Your task to perform on an android device: change the clock display to show seconds Image 0: 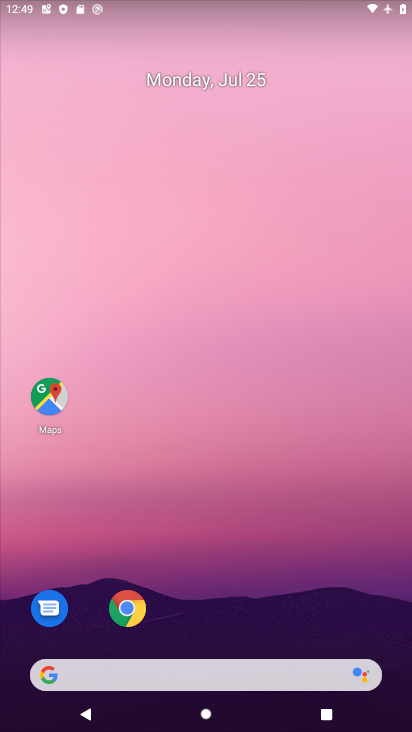
Step 0: drag from (254, 607) to (236, 179)
Your task to perform on an android device: change the clock display to show seconds Image 1: 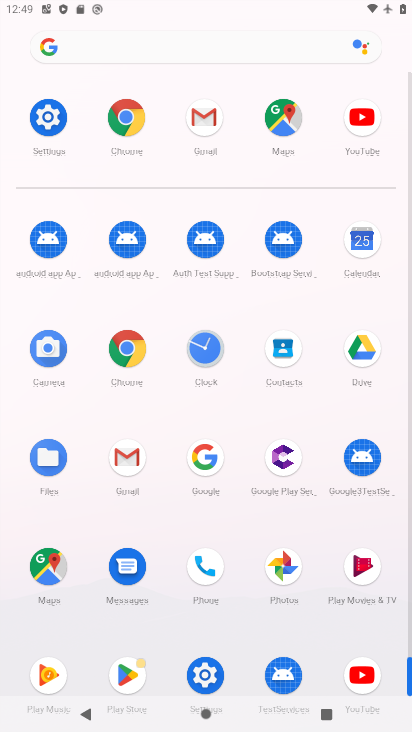
Step 1: drag from (212, 529) to (209, 277)
Your task to perform on an android device: change the clock display to show seconds Image 2: 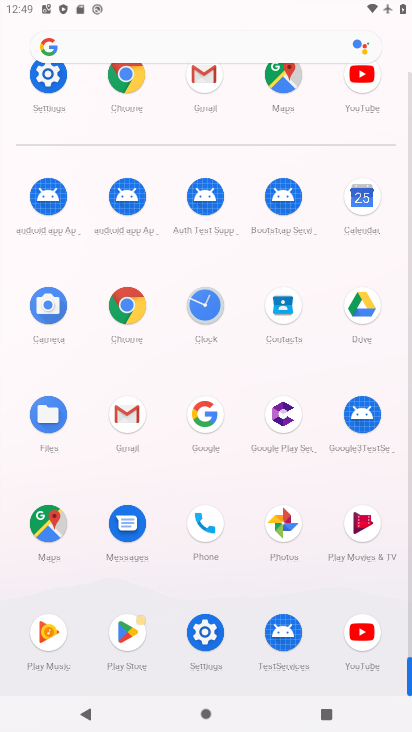
Step 2: click (196, 317)
Your task to perform on an android device: change the clock display to show seconds Image 3: 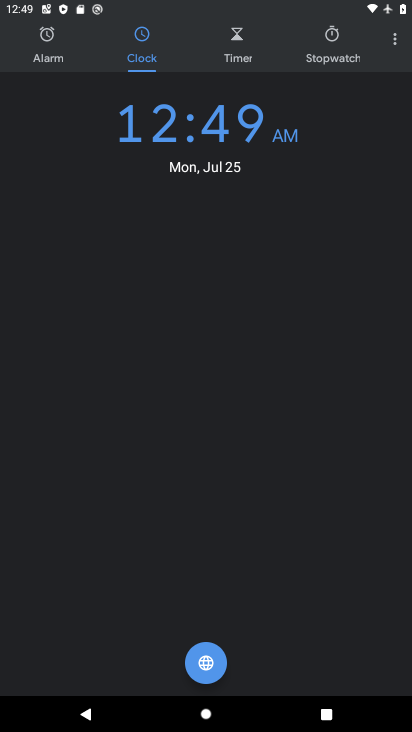
Step 3: click (395, 46)
Your task to perform on an android device: change the clock display to show seconds Image 4: 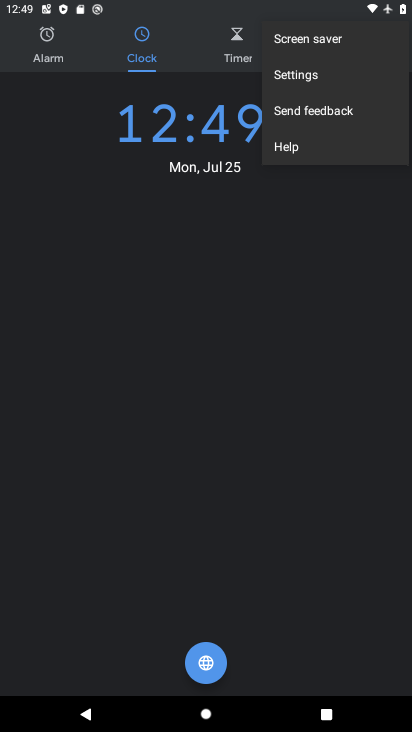
Step 4: click (311, 84)
Your task to perform on an android device: change the clock display to show seconds Image 5: 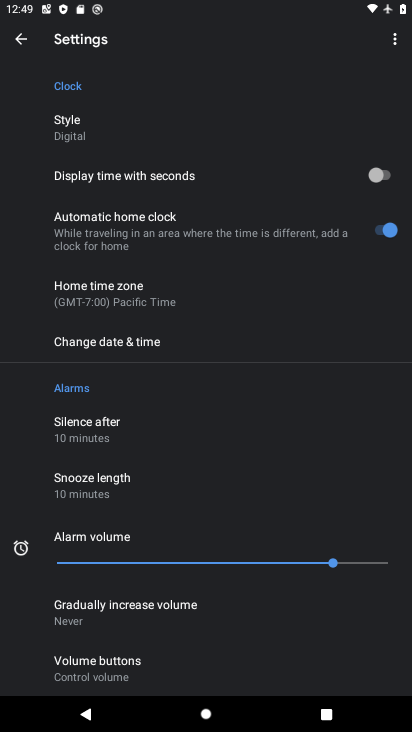
Step 5: click (242, 181)
Your task to perform on an android device: change the clock display to show seconds Image 6: 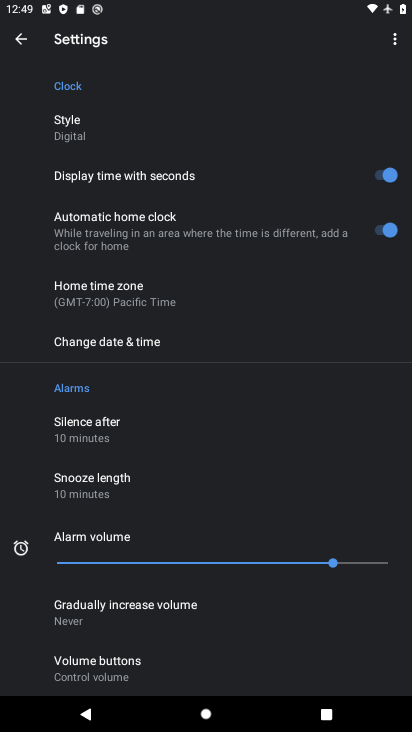
Step 6: task complete